Your task to perform on an android device: Open Google Chrome Image 0: 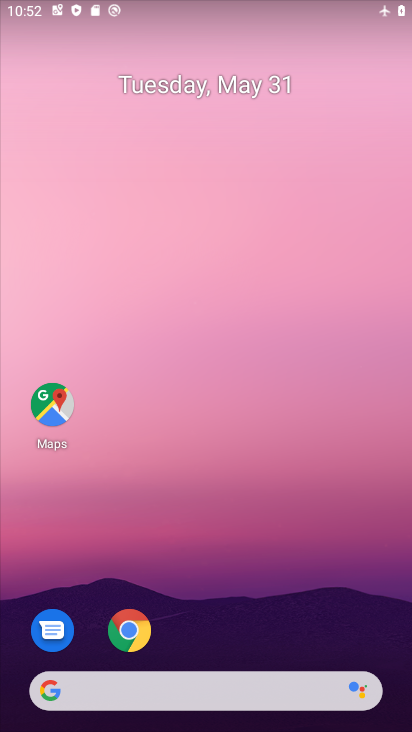
Step 0: drag from (213, 689) to (274, 161)
Your task to perform on an android device: Open Google Chrome Image 1: 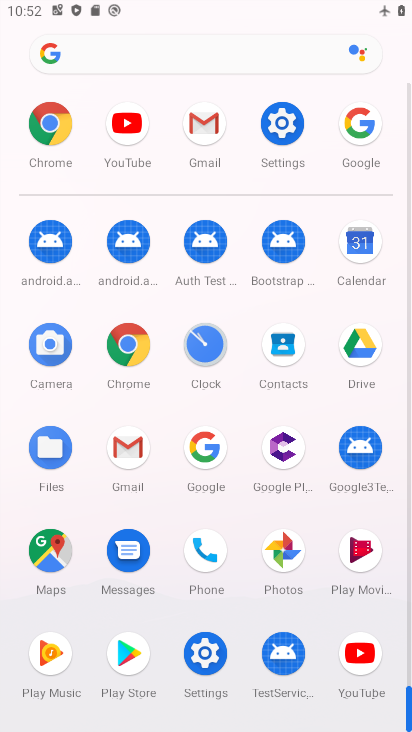
Step 1: click (136, 356)
Your task to perform on an android device: Open Google Chrome Image 2: 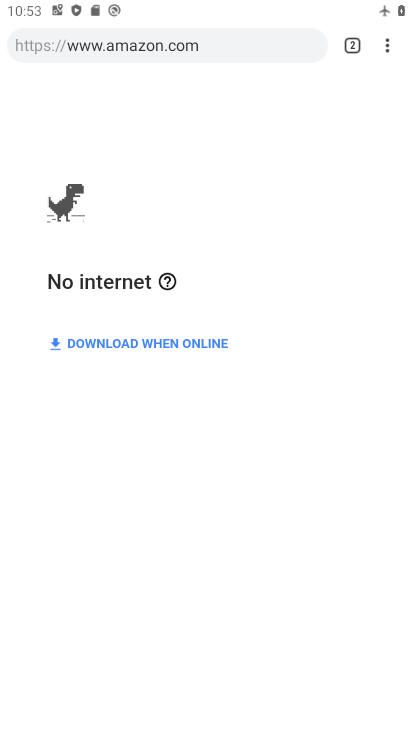
Step 2: task complete